Your task to perform on an android device: Turn on the flashlight Image 0: 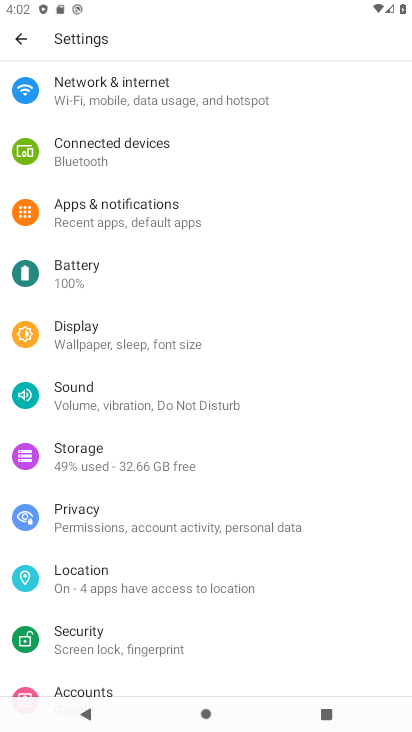
Step 0: task impossible